Your task to perform on an android device: remove spam from my inbox in the gmail app Image 0: 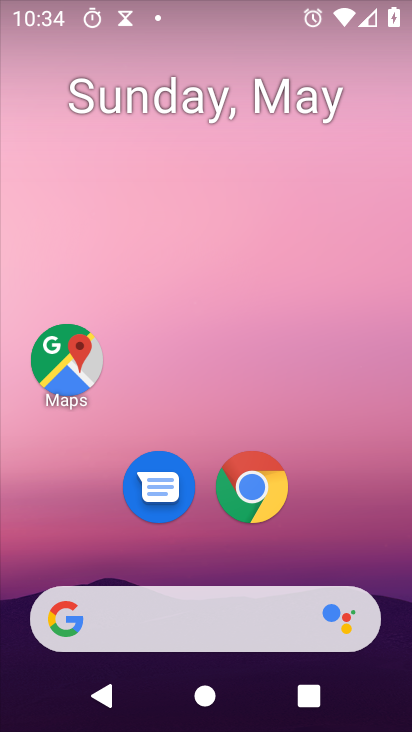
Step 0: drag from (343, 477) to (412, 15)
Your task to perform on an android device: remove spam from my inbox in the gmail app Image 1: 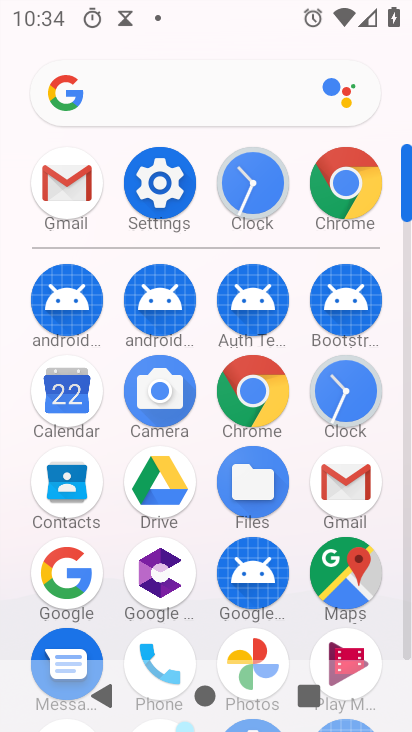
Step 1: click (62, 199)
Your task to perform on an android device: remove spam from my inbox in the gmail app Image 2: 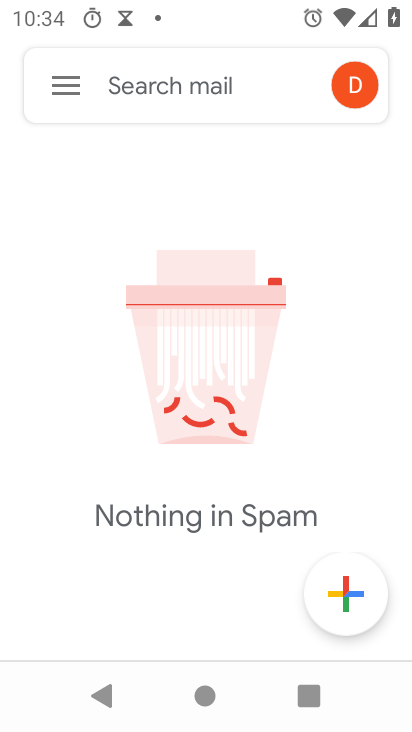
Step 2: click (73, 86)
Your task to perform on an android device: remove spam from my inbox in the gmail app Image 3: 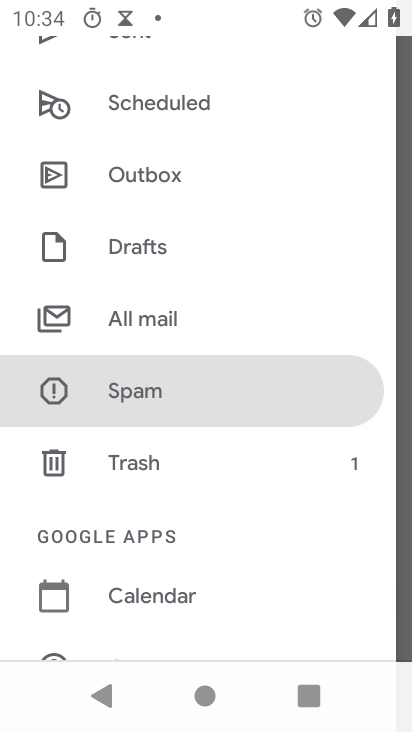
Step 3: click (129, 395)
Your task to perform on an android device: remove spam from my inbox in the gmail app Image 4: 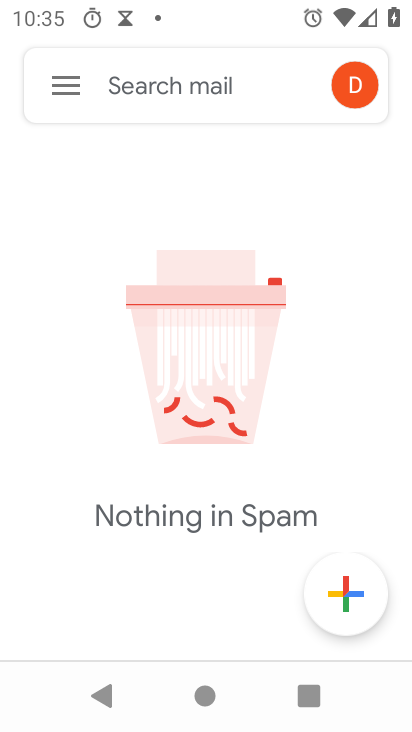
Step 4: task complete